Your task to perform on an android device: Go to Google maps Image 0: 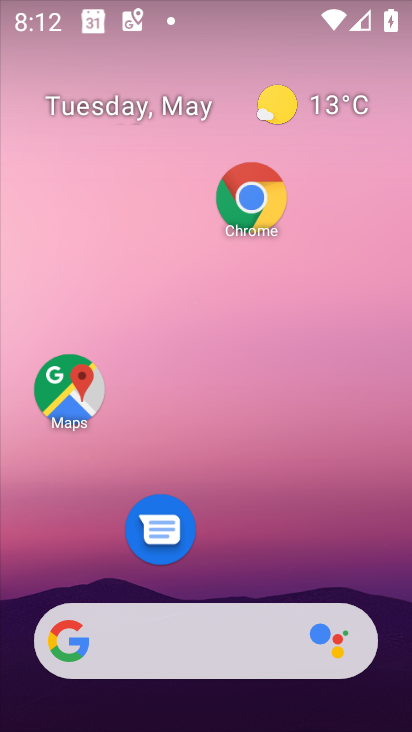
Step 0: click (50, 409)
Your task to perform on an android device: Go to Google maps Image 1: 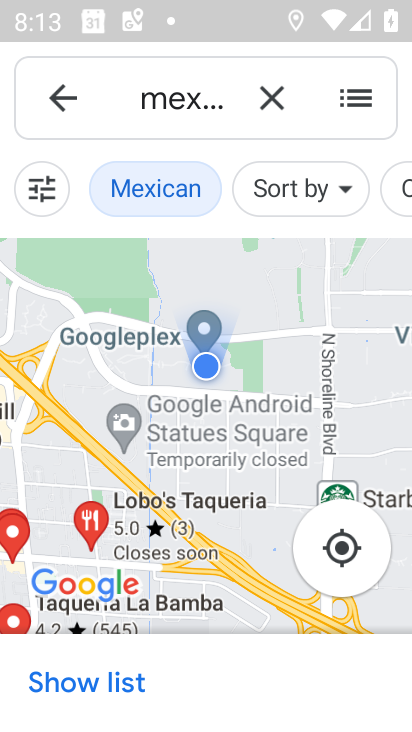
Step 1: task complete